Your task to perform on an android device: check data usage Image 0: 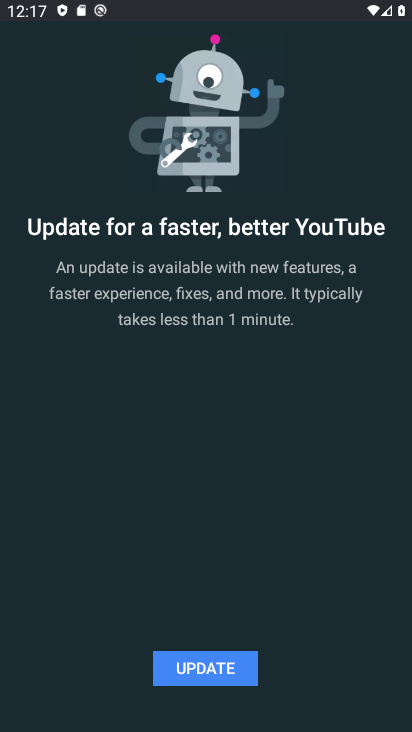
Step 0: press home button
Your task to perform on an android device: check data usage Image 1: 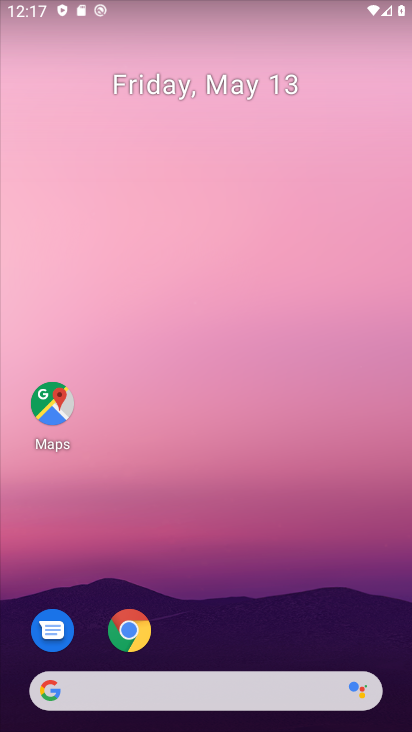
Step 1: drag from (237, 702) to (255, 227)
Your task to perform on an android device: check data usage Image 2: 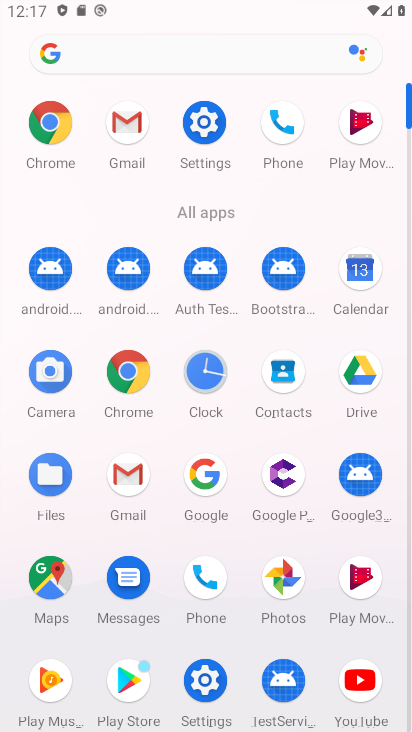
Step 2: click (190, 145)
Your task to perform on an android device: check data usage Image 3: 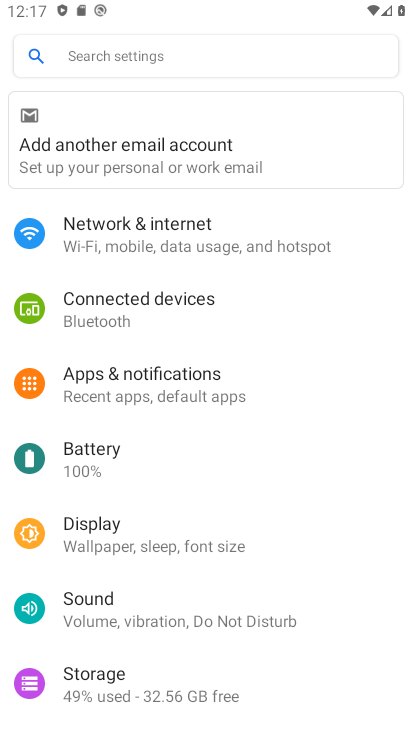
Step 3: click (146, 56)
Your task to perform on an android device: check data usage Image 4: 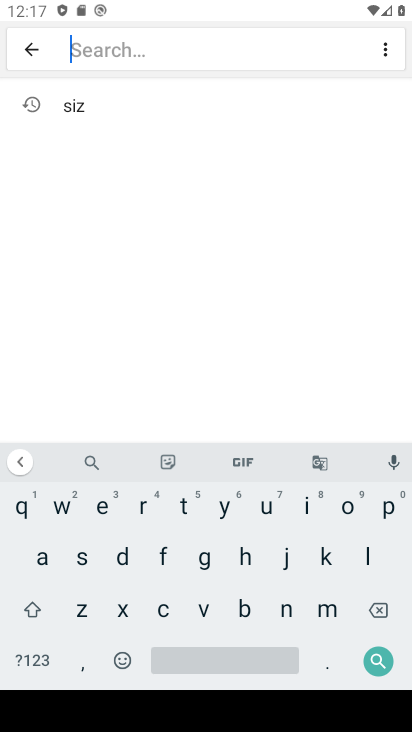
Step 4: click (118, 553)
Your task to perform on an android device: check data usage Image 5: 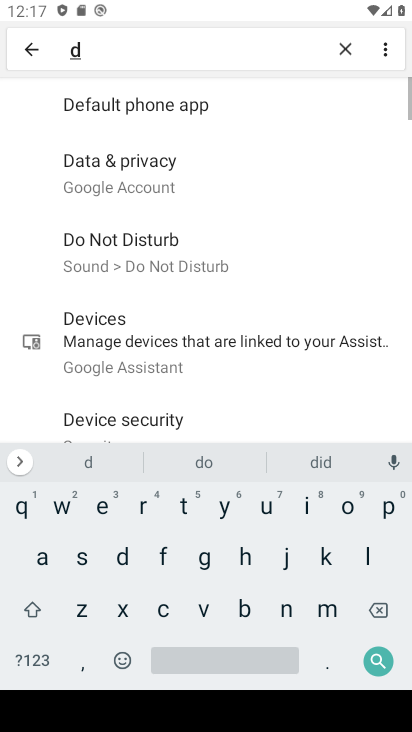
Step 5: click (40, 553)
Your task to perform on an android device: check data usage Image 6: 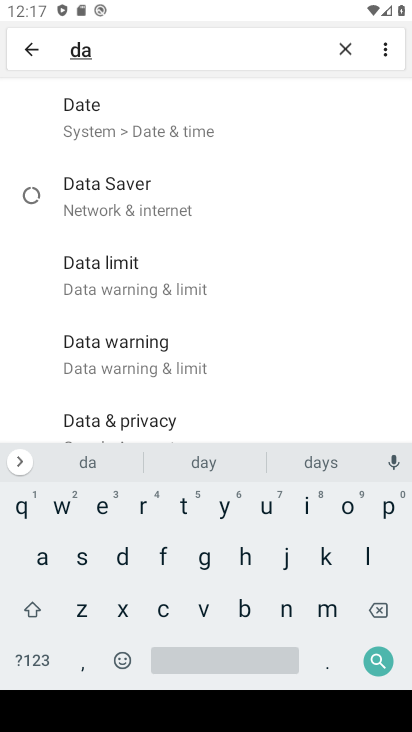
Step 6: click (177, 504)
Your task to perform on an android device: check data usage Image 7: 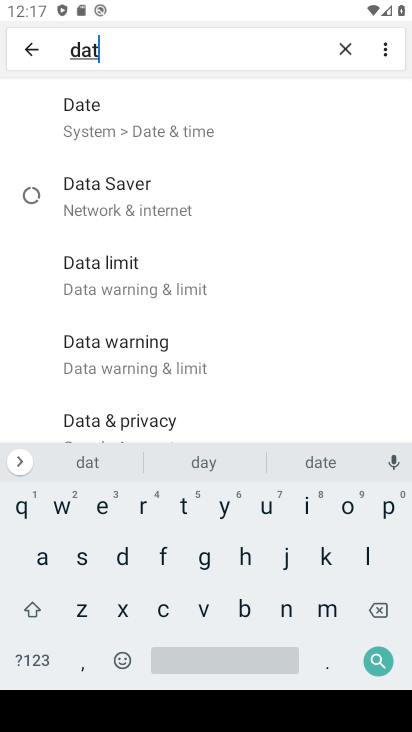
Step 7: click (38, 553)
Your task to perform on an android device: check data usage Image 8: 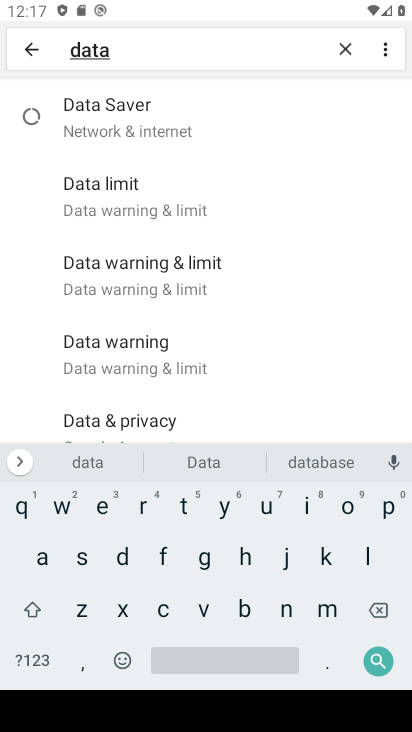
Step 8: click (194, 656)
Your task to perform on an android device: check data usage Image 9: 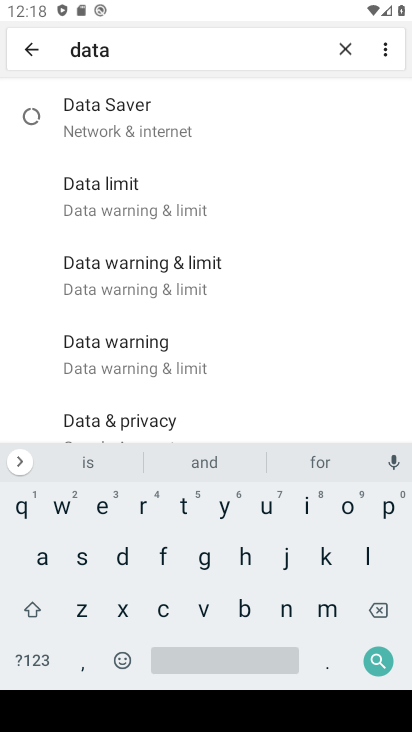
Step 9: click (269, 505)
Your task to perform on an android device: check data usage Image 10: 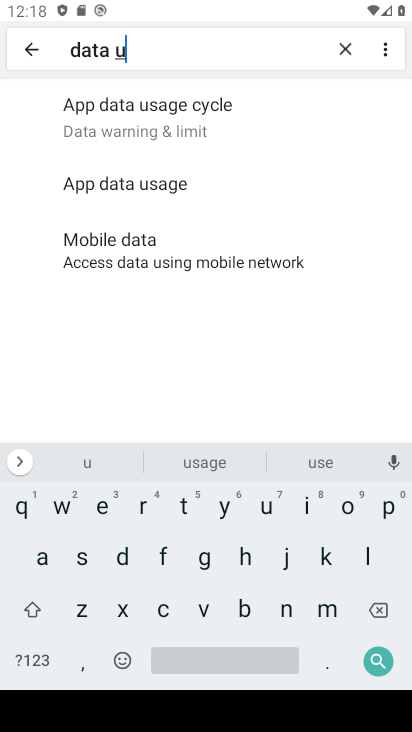
Step 10: click (136, 192)
Your task to perform on an android device: check data usage Image 11: 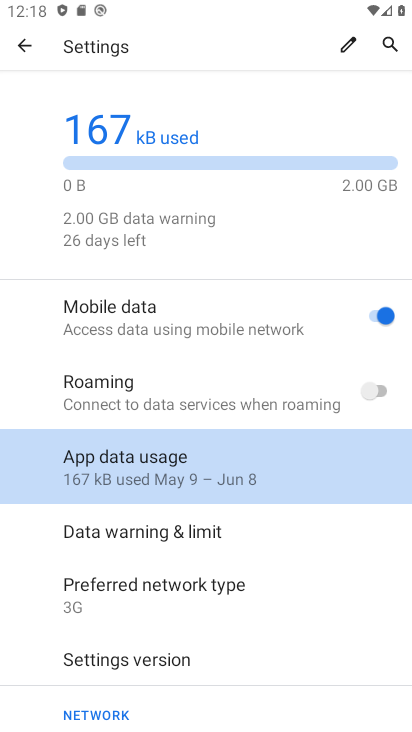
Step 11: click (151, 457)
Your task to perform on an android device: check data usage Image 12: 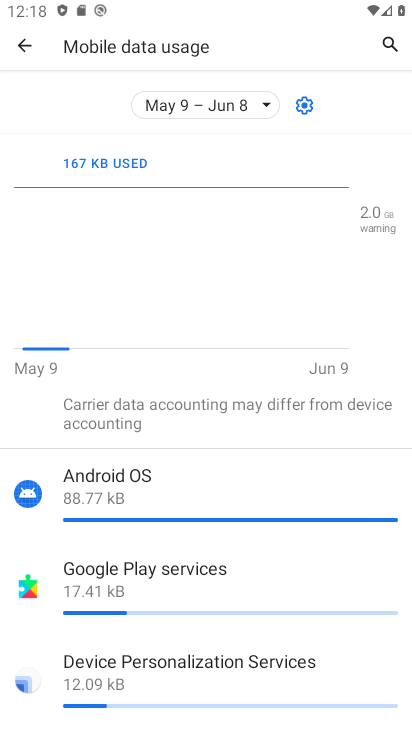
Step 12: task complete